Your task to perform on an android device: Go to Reddit.com Image 0: 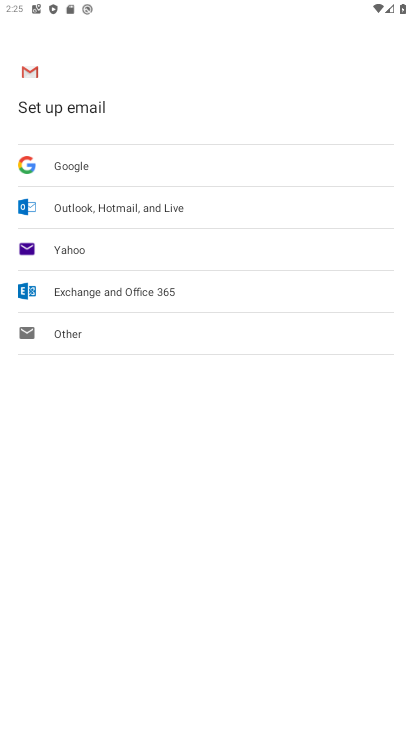
Step 0: press home button
Your task to perform on an android device: Go to Reddit.com Image 1: 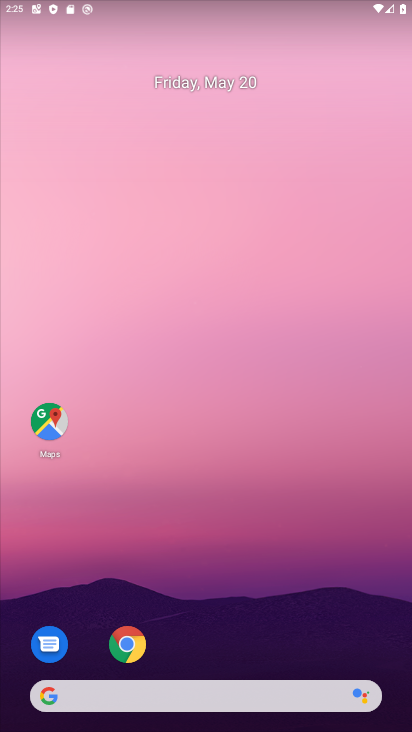
Step 1: click (119, 649)
Your task to perform on an android device: Go to Reddit.com Image 2: 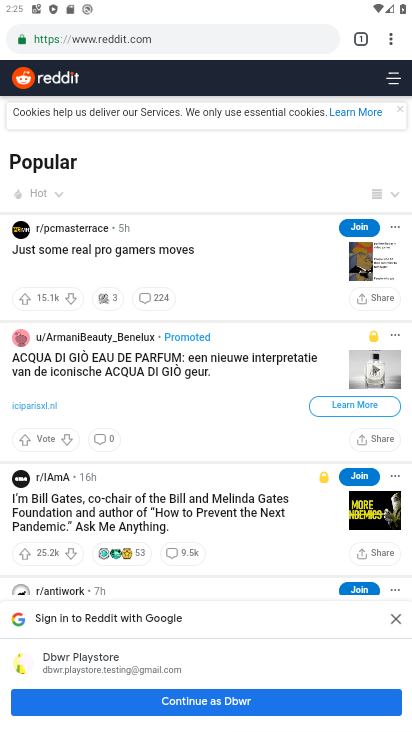
Step 2: task complete